Your task to perform on an android device: delete the emails in spam in the gmail app Image 0: 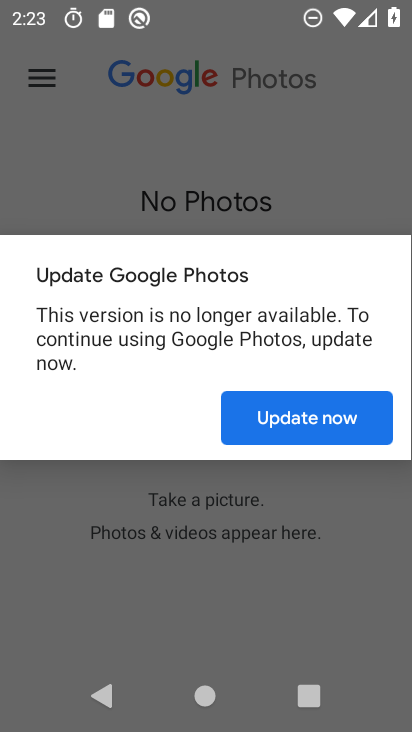
Step 0: press home button
Your task to perform on an android device: delete the emails in spam in the gmail app Image 1: 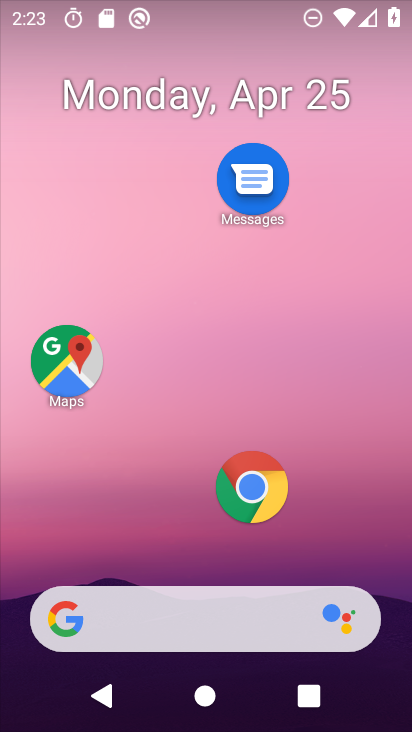
Step 1: drag from (197, 614) to (314, 26)
Your task to perform on an android device: delete the emails in spam in the gmail app Image 2: 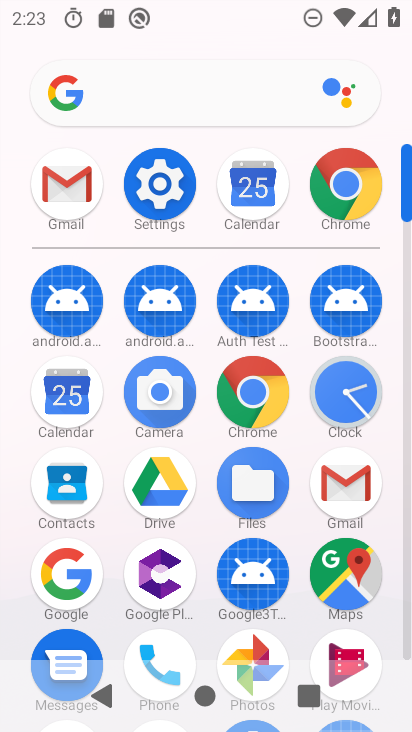
Step 2: click (344, 475)
Your task to perform on an android device: delete the emails in spam in the gmail app Image 3: 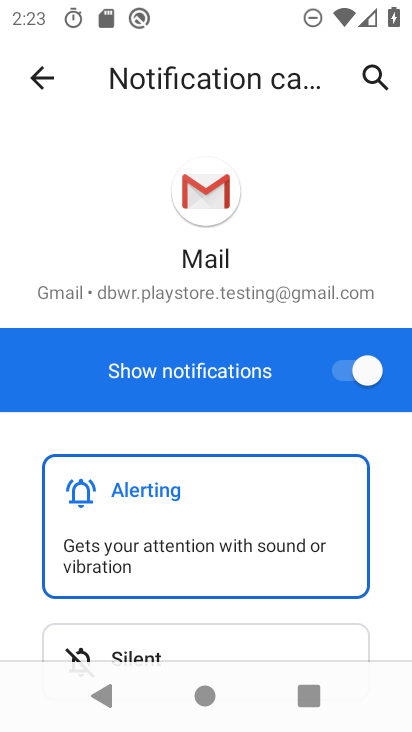
Step 3: click (49, 79)
Your task to perform on an android device: delete the emails in spam in the gmail app Image 4: 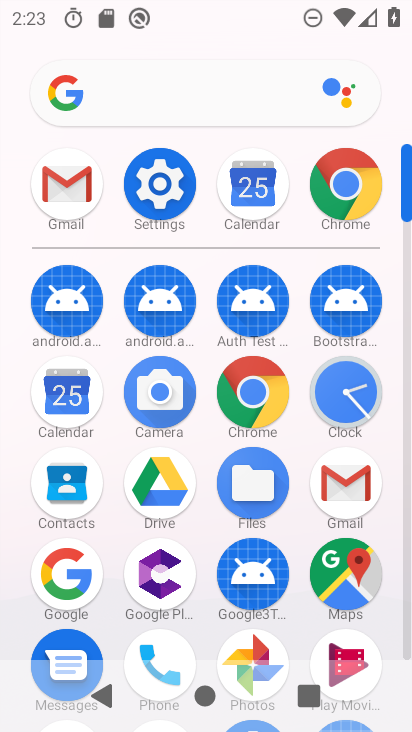
Step 4: click (357, 484)
Your task to perform on an android device: delete the emails in spam in the gmail app Image 5: 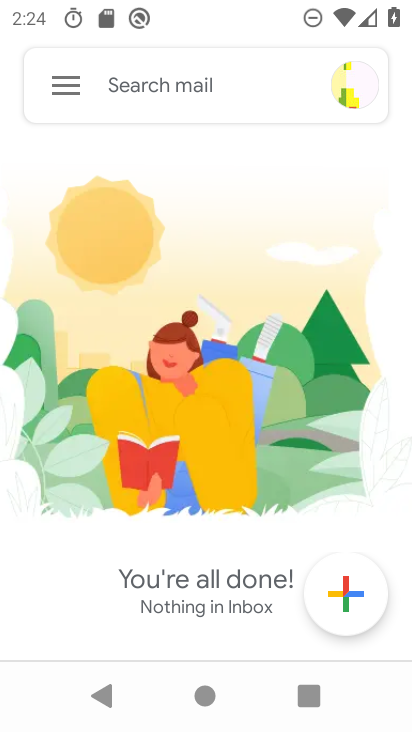
Step 5: click (50, 85)
Your task to perform on an android device: delete the emails in spam in the gmail app Image 6: 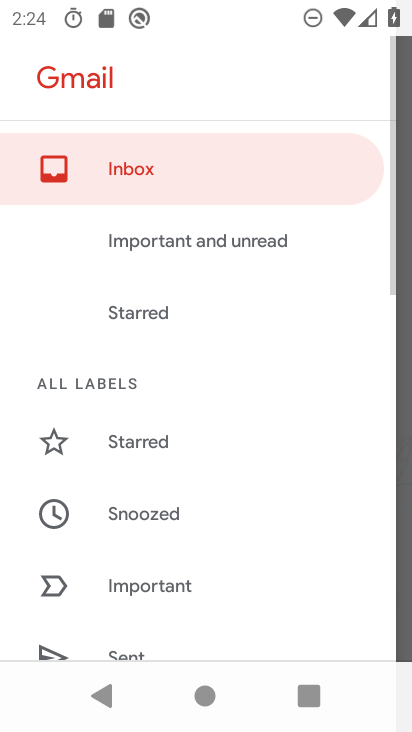
Step 6: drag from (163, 543) to (158, 130)
Your task to perform on an android device: delete the emails in spam in the gmail app Image 7: 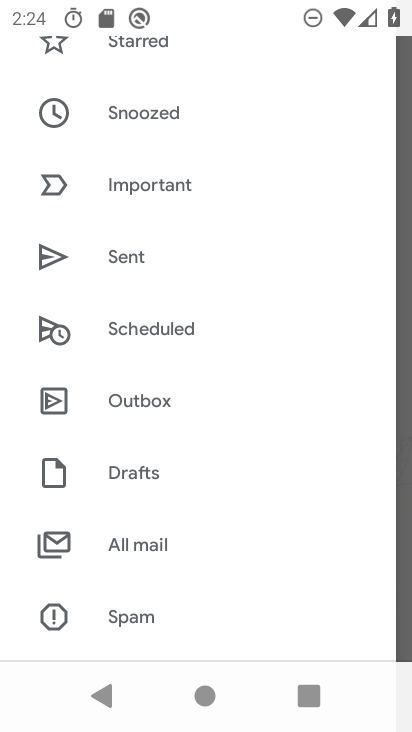
Step 7: click (160, 615)
Your task to perform on an android device: delete the emails in spam in the gmail app Image 8: 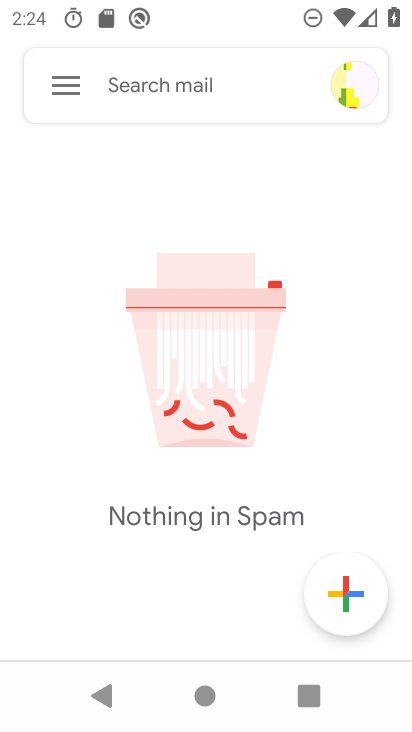
Step 8: task complete